Your task to perform on an android device: check out phone information Image 0: 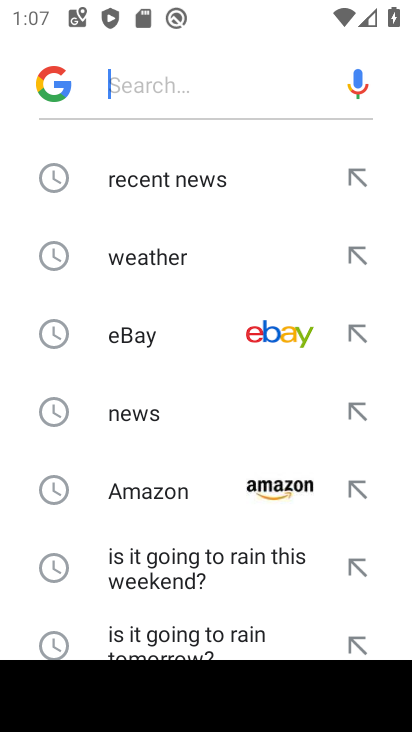
Step 0: press home button
Your task to perform on an android device: check out phone information Image 1: 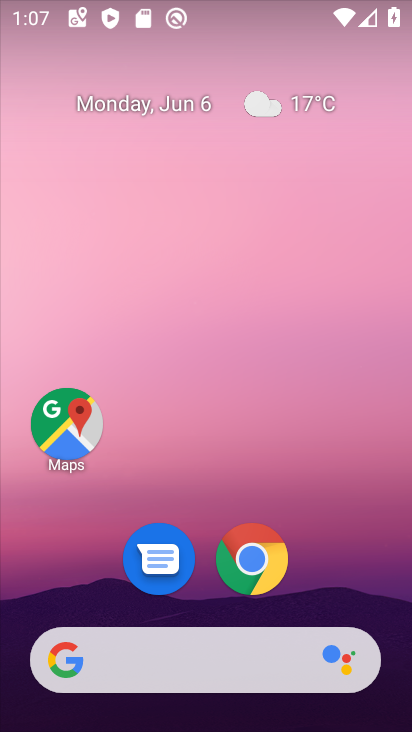
Step 1: drag from (339, 592) to (304, 0)
Your task to perform on an android device: check out phone information Image 2: 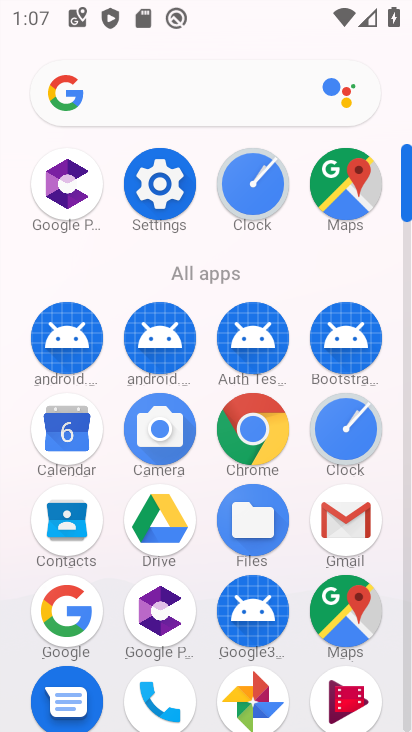
Step 2: click (161, 705)
Your task to perform on an android device: check out phone information Image 3: 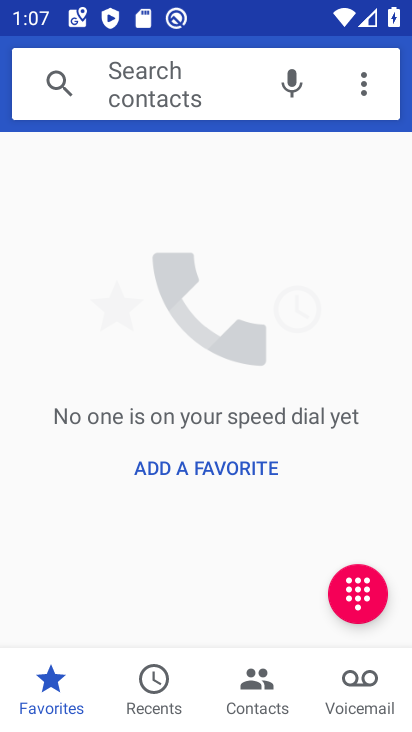
Step 3: task complete